Your task to perform on an android device: Check the weather Image 0: 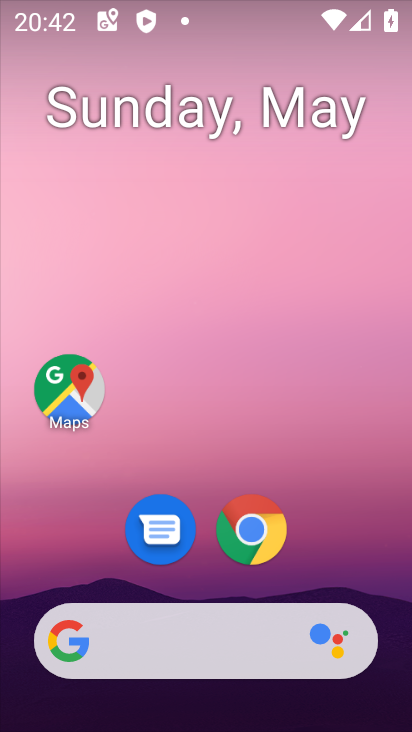
Step 0: click (115, 642)
Your task to perform on an android device: Check the weather Image 1: 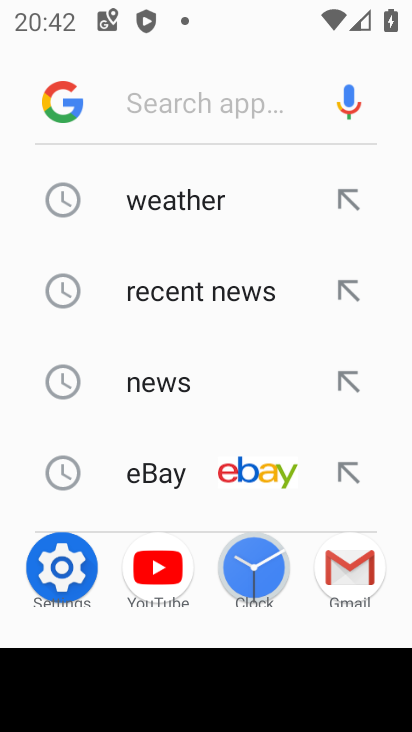
Step 1: click (180, 201)
Your task to perform on an android device: Check the weather Image 2: 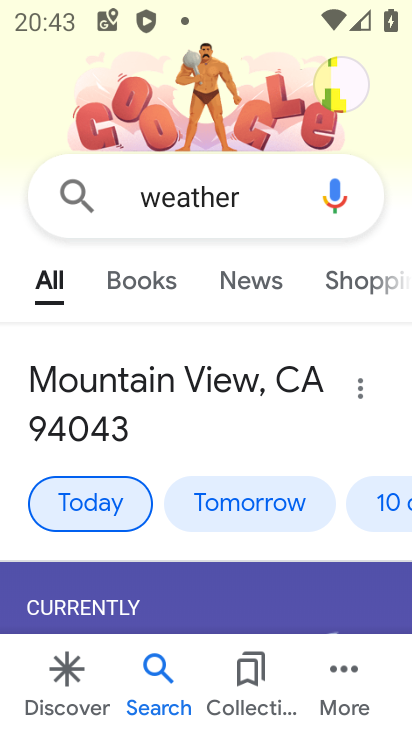
Step 2: task complete